Your task to perform on an android device: What is the news today? Image 0: 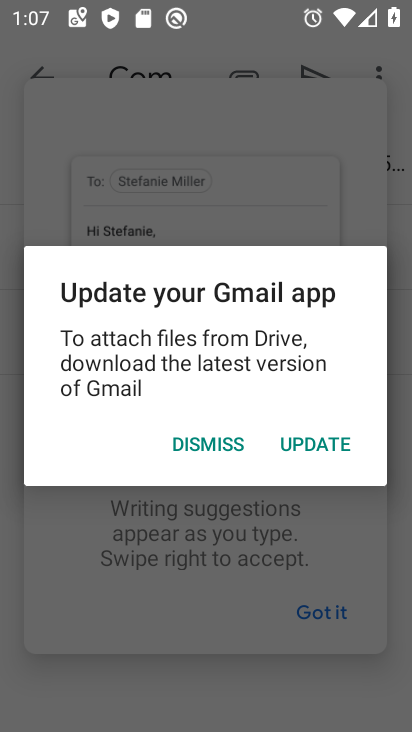
Step 0: press home button
Your task to perform on an android device: What is the news today? Image 1: 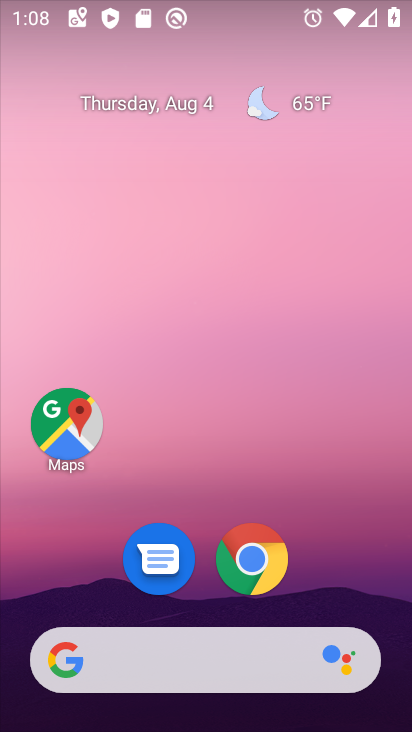
Step 1: drag from (200, 652) to (198, 111)
Your task to perform on an android device: What is the news today? Image 2: 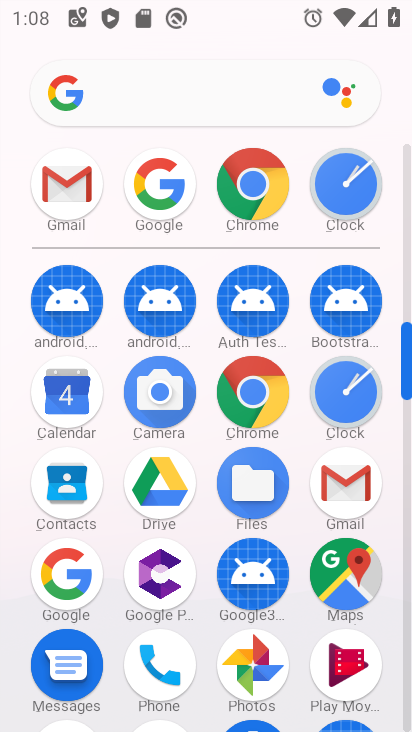
Step 2: click (155, 184)
Your task to perform on an android device: What is the news today? Image 3: 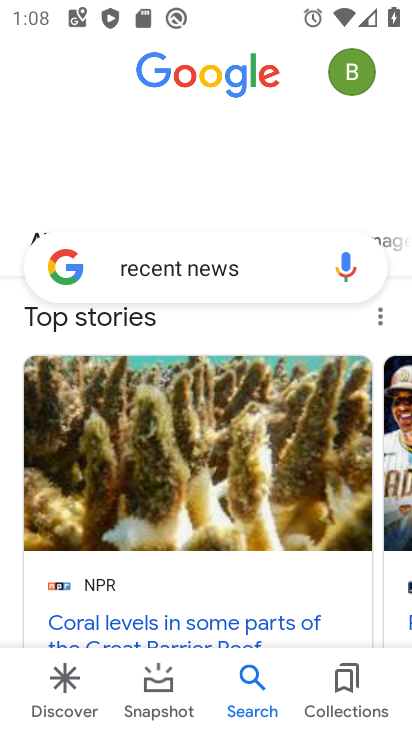
Step 3: click (187, 619)
Your task to perform on an android device: What is the news today? Image 4: 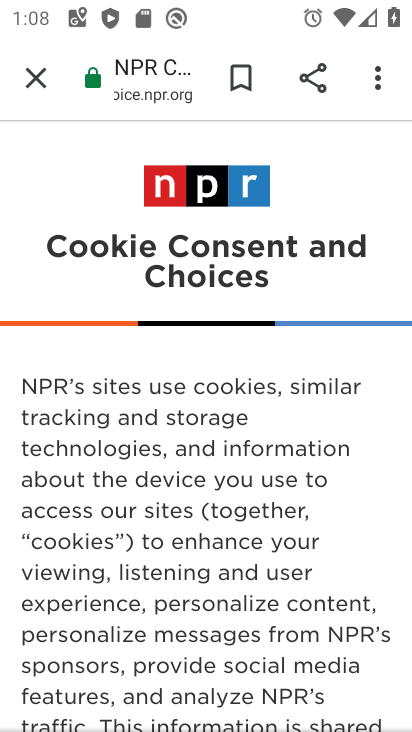
Step 4: task complete